Your task to perform on an android device: change the clock style Image 0: 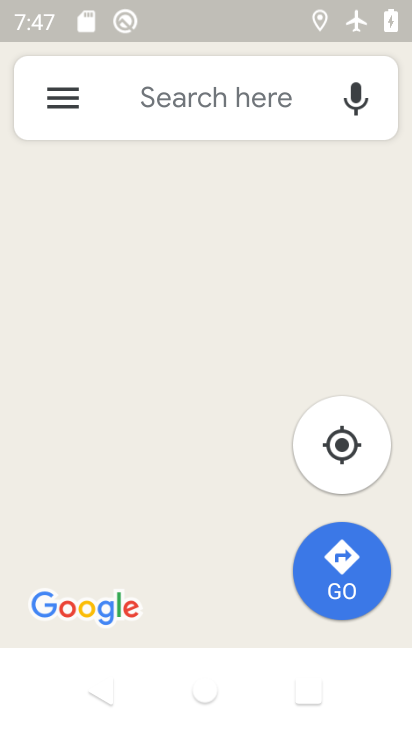
Step 0: press home button
Your task to perform on an android device: change the clock style Image 1: 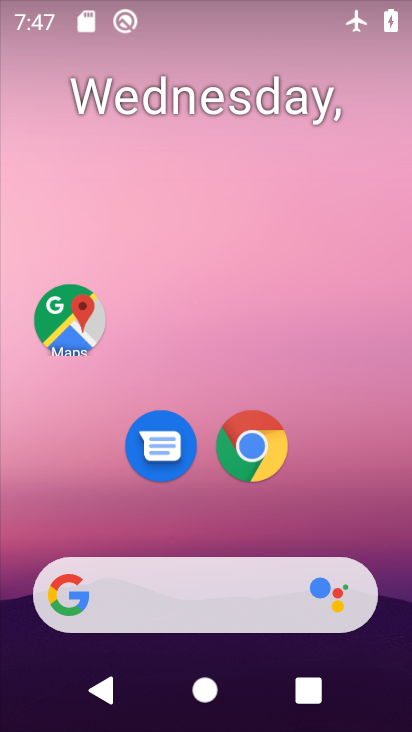
Step 1: drag from (349, 453) to (342, 2)
Your task to perform on an android device: change the clock style Image 2: 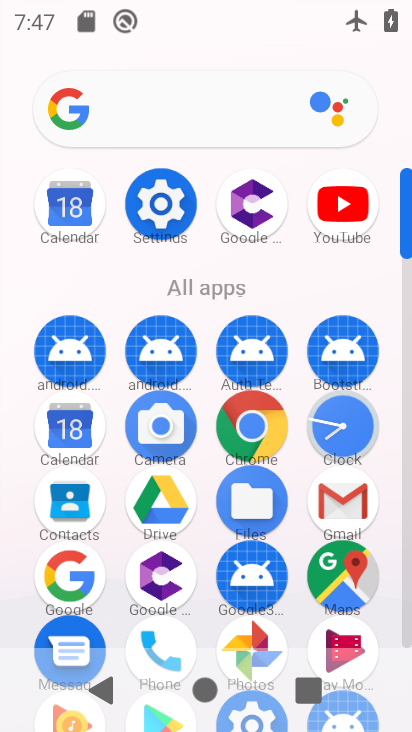
Step 2: click (338, 416)
Your task to perform on an android device: change the clock style Image 3: 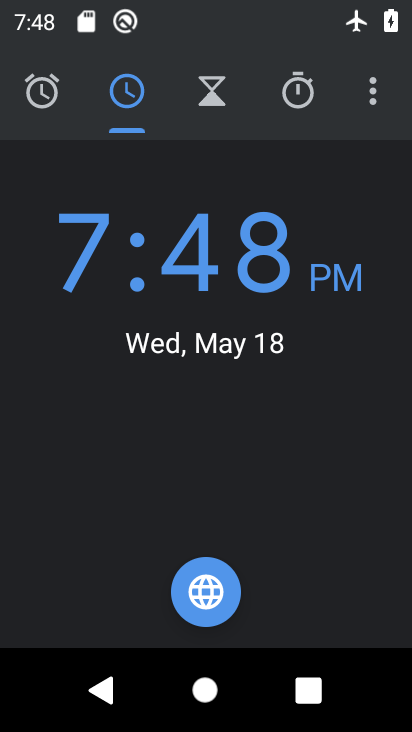
Step 3: click (372, 83)
Your task to perform on an android device: change the clock style Image 4: 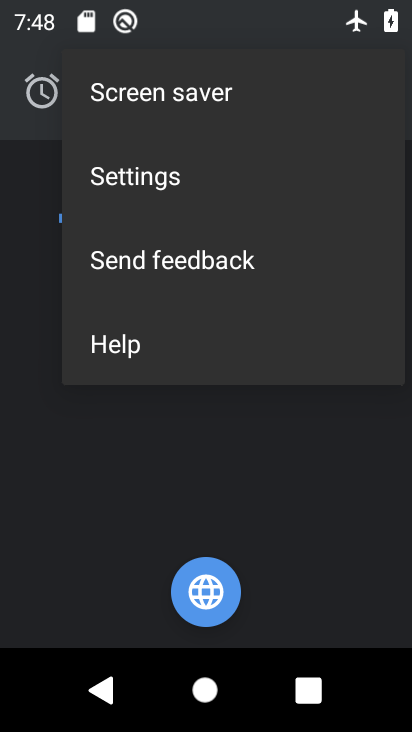
Step 4: click (207, 172)
Your task to perform on an android device: change the clock style Image 5: 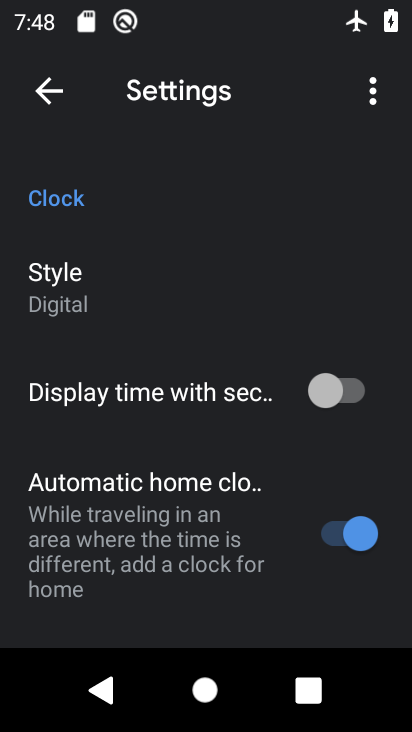
Step 5: click (161, 288)
Your task to perform on an android device: change the clock style Image 6: 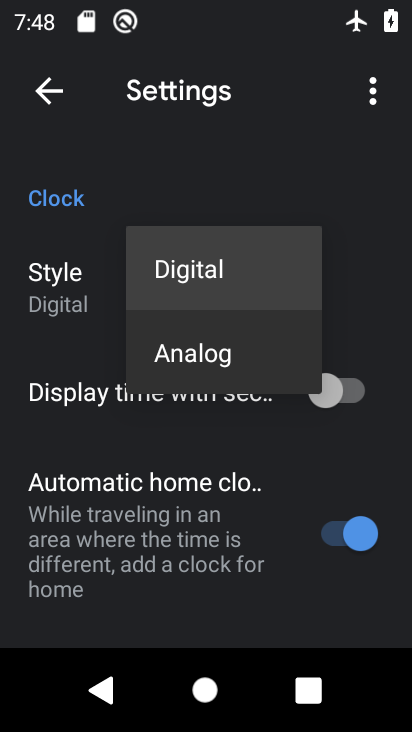
Step 6: click (179, 359)
Your task to perform on an android device: change the clock style Image 7: 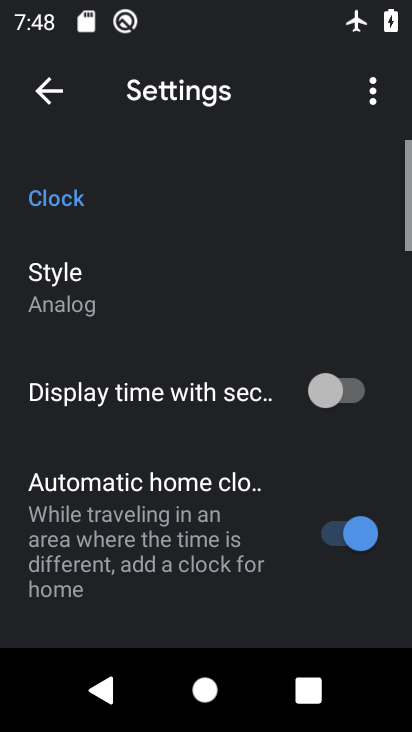
Step 7: task complete